Your task to perform on an android device: What's the weather today? Image 0: 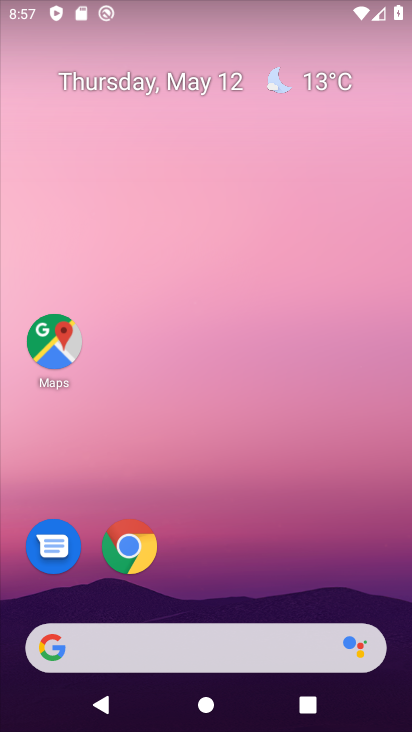
Step 0: click (142, 552)
Your task to perform on an android device: What's the weather today? Image 1: 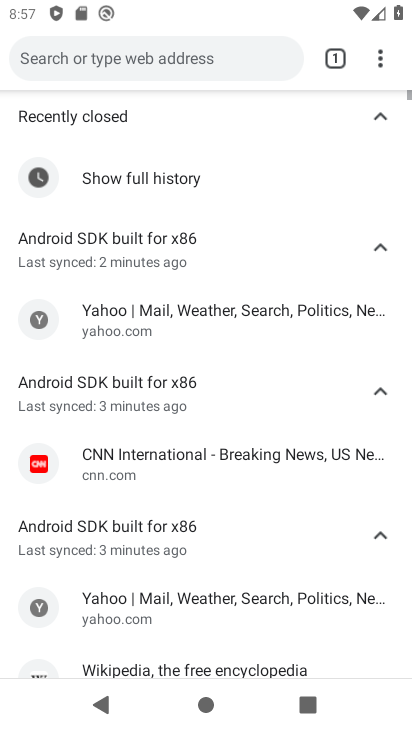
Step 1: click (250, 60)
Your task to perform on an android device: What's the weather today? Image 2: 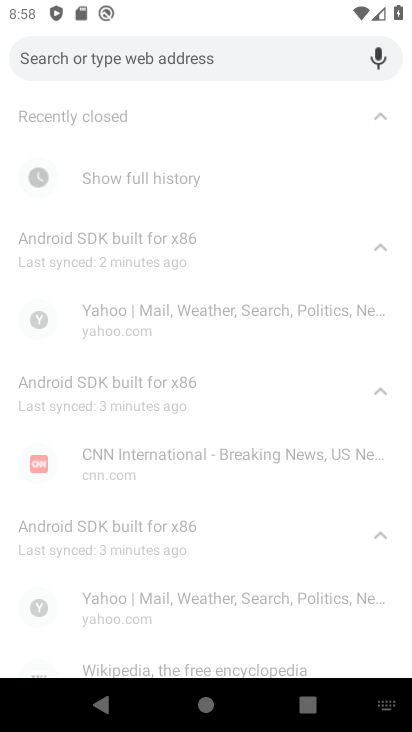
Step 2: type "What's the weather today?"
Your task to perform on an android device: What's the weather today? Image 3: 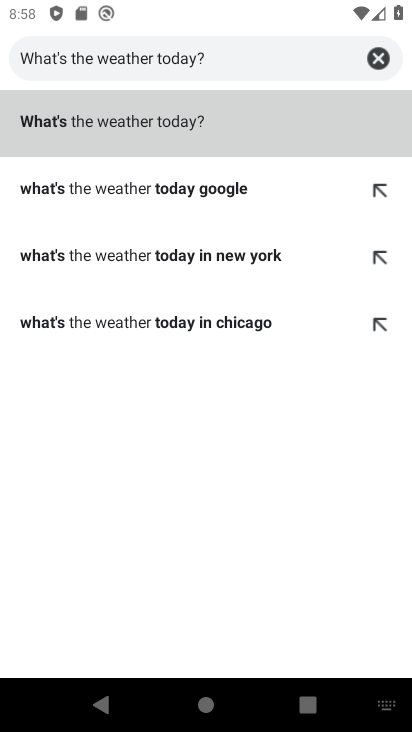
Step 3: click (83, 117)
Your task to perform on an android device: What's the weather today? Image 4: 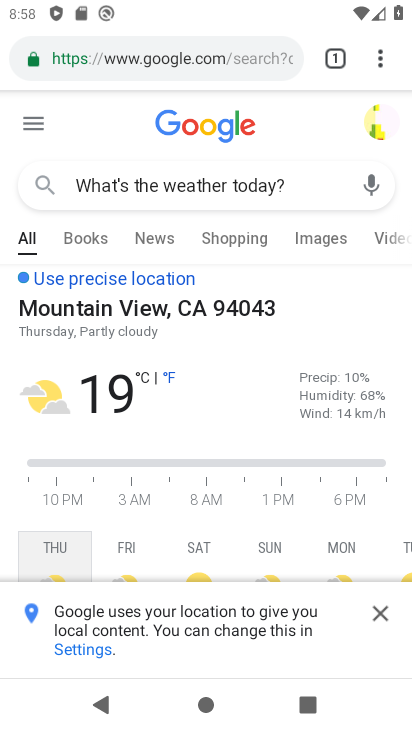
Step 4: task complete